Your task to perform on an android device: delete a single message in the gmail app Image 0: 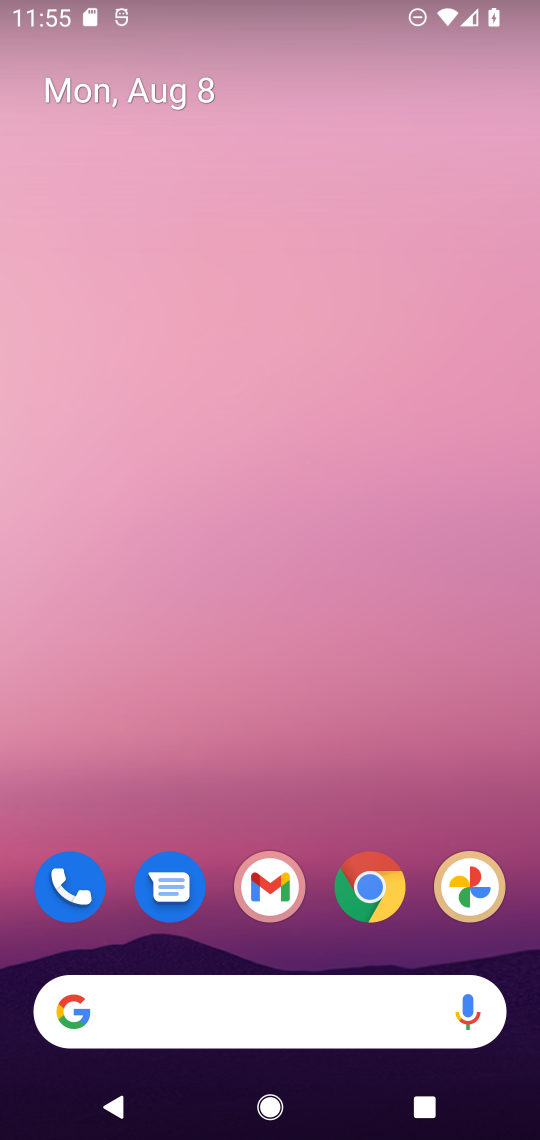
Step 0: click (268, 885)
Your task to perform on an android device: delete a single message in the gmail app Image 1: 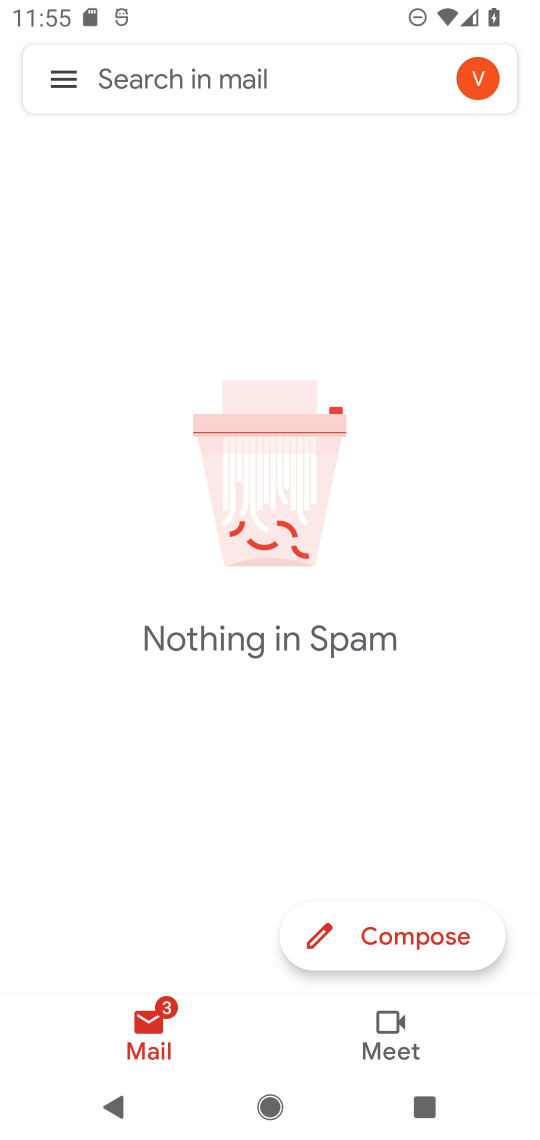
Step 1: click (63, 71)
Your task to perform on an android device: delete a single message in the gmail app Image 2: 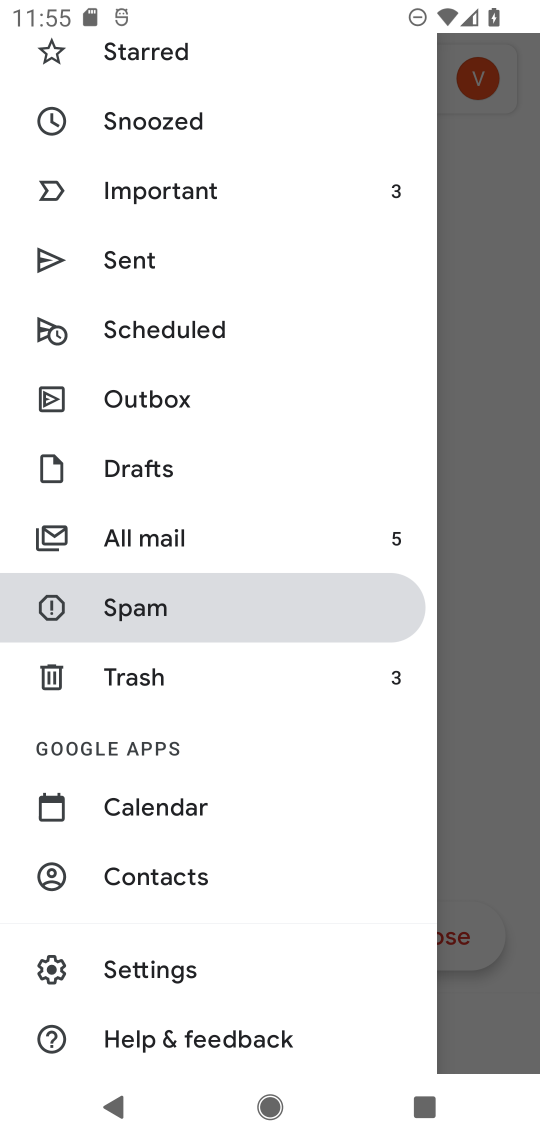
Step 2: click (170, 539)
Your task to perform on an android device: delete a single message in the gmail app Image 3: 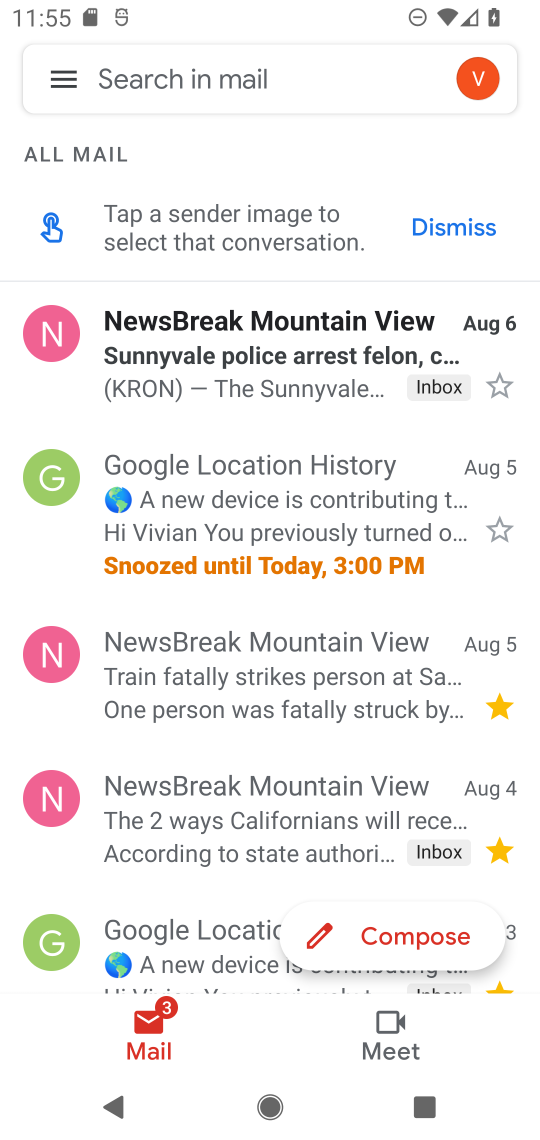
Step 3: click (259, 328)
Your task to perform on an android device: delete a single message in the gmail app Image 4: 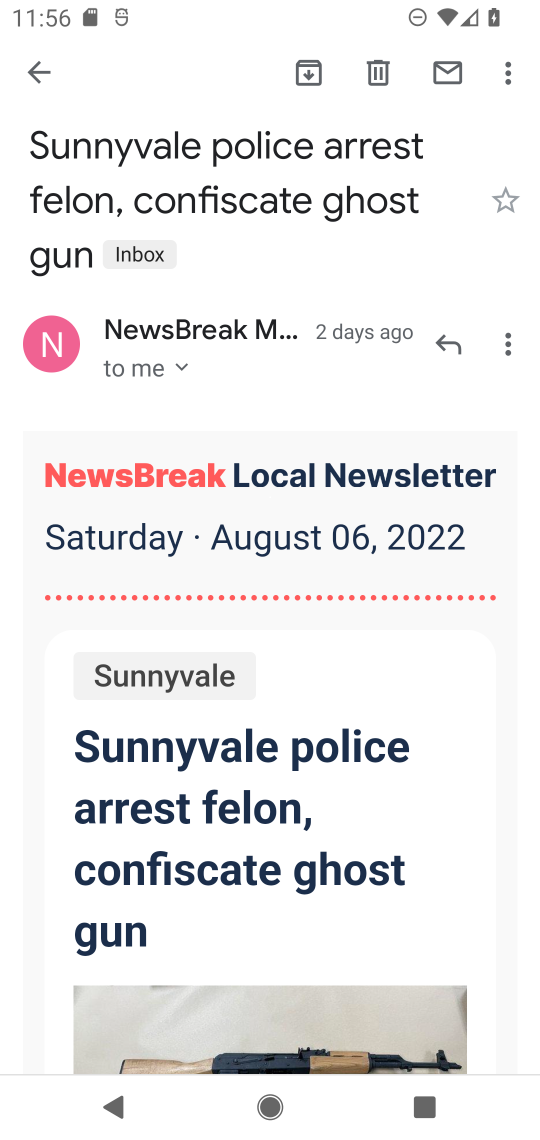
Step 4: click (369, 71)
Your task to perform on an android device: delete a single message in the gmail app Image 5: 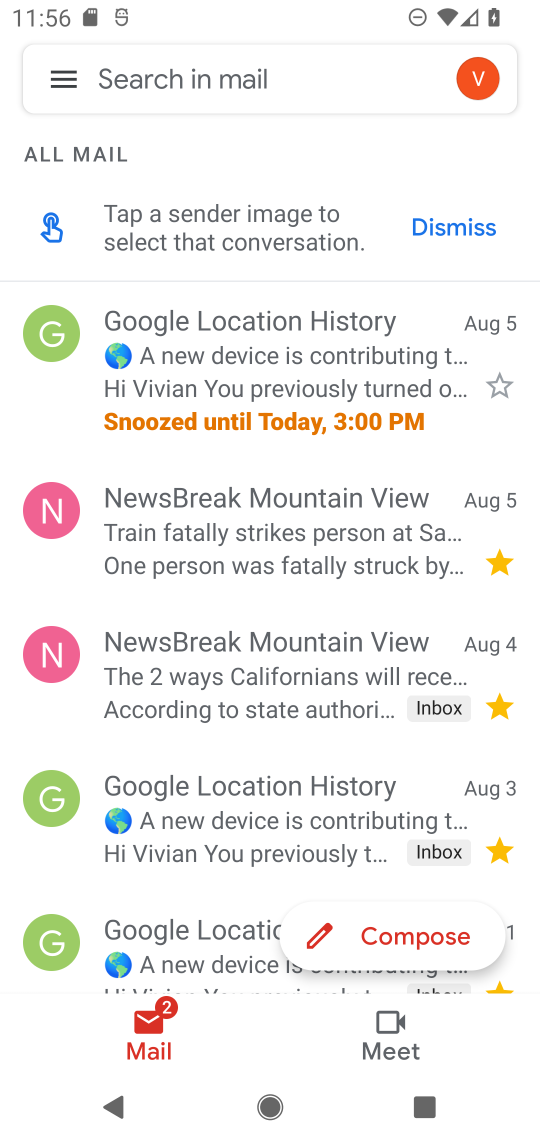
Step 5: task complete